Your task to perform on an android device: Open Chrome and go to settings Image 0: 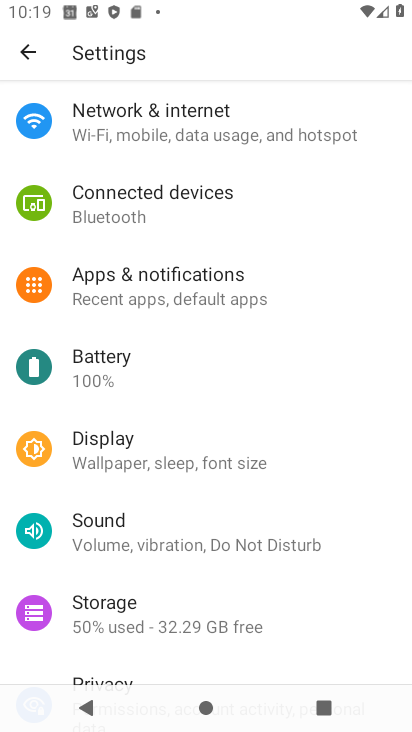
Step 0: press home button
Your task to perform on an android device: Open Chrome and go to settings Image 1: 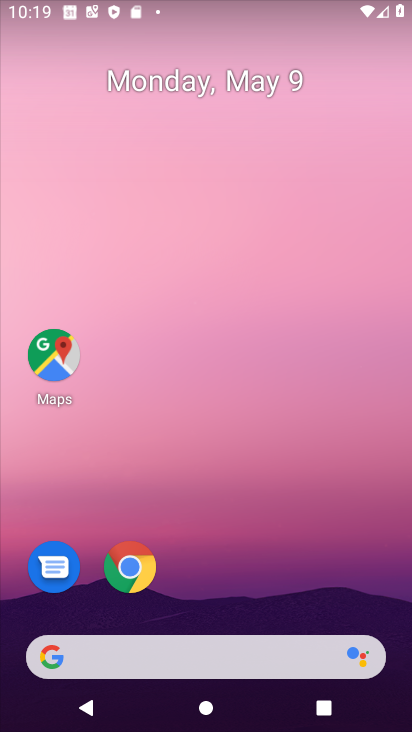
Step 1: click (120, 580)
Your task to perform on an android device: Open Chrome and go to settings Image 2: 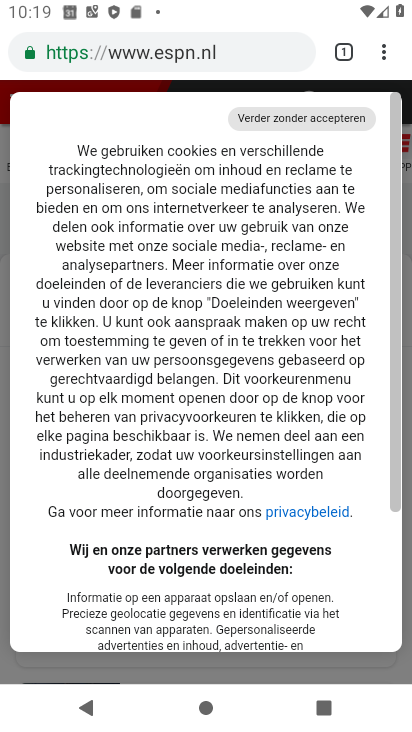
Step 2: click (381, 49)
Your task to perform on an android device: Open Chrome and go to settings Image 3: 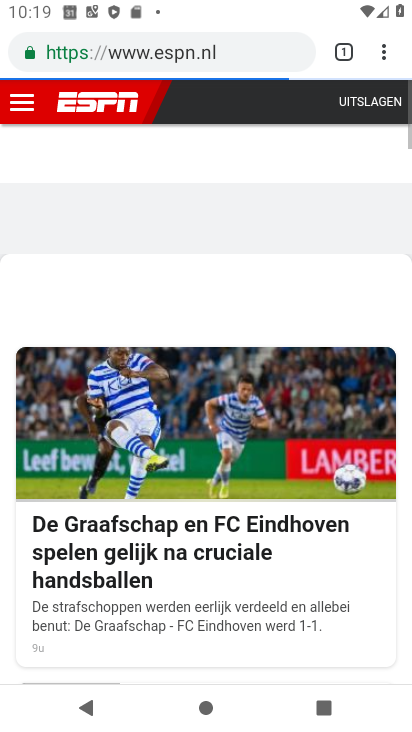
Step 3: task complete